Your task to perform on an android device: Go to settings Image 0: 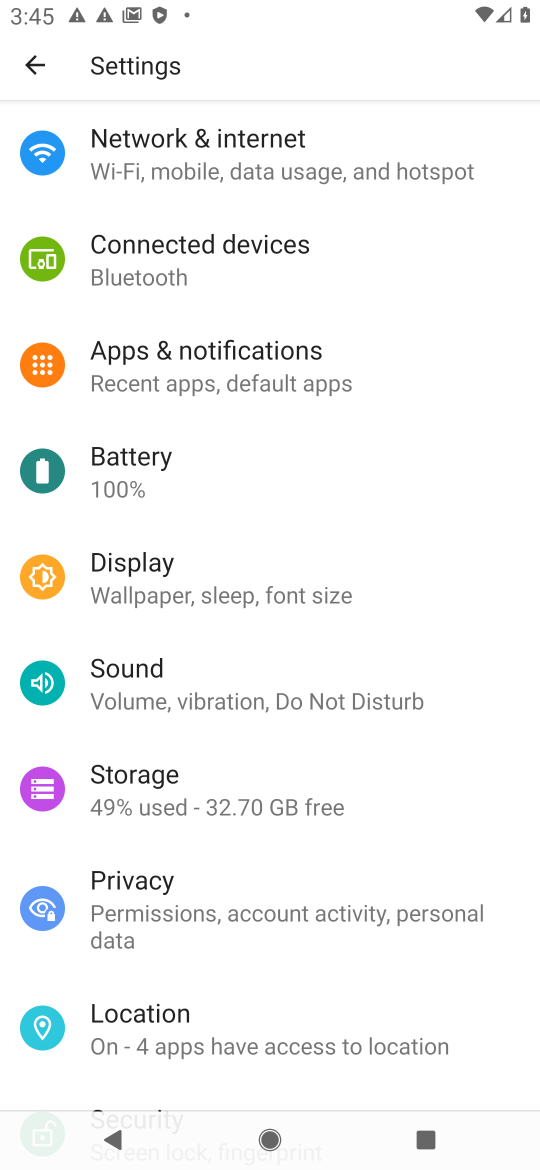
Step 0: task complete